Your task to perform on an android device: allow notifications from all sites in the chrome app Image 0: 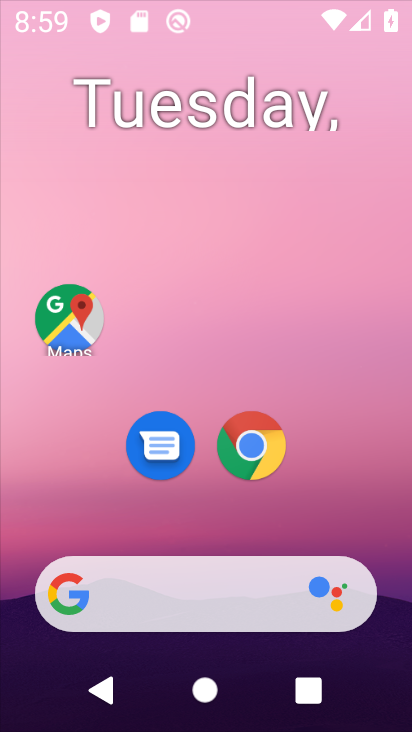
Step 0: drag from (240, 85) to (253, 6)
Your task to perform on an android device: allow notifications from all sites in the chrome app Image 1: 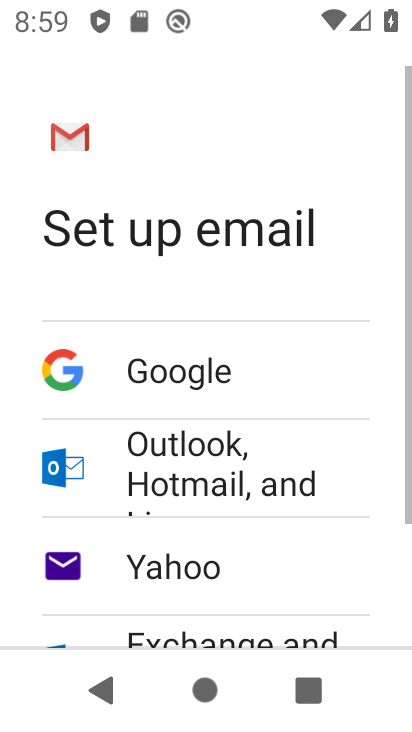
Step 1: press back button
Your task to perform on an android device: allow notifications from all sites in the chrome app Image 2: 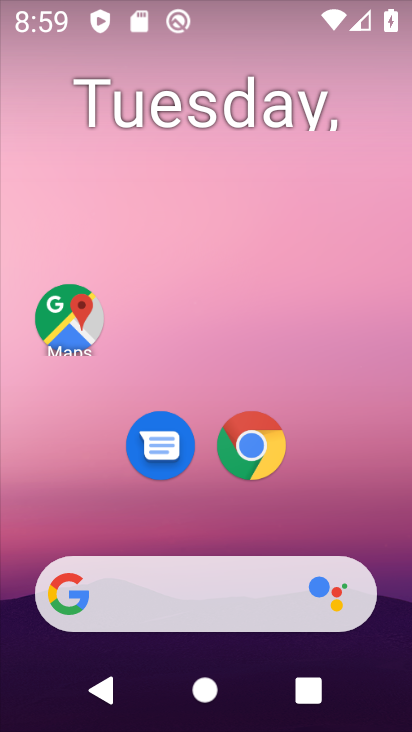
Step 2: click (250, 442)
Your task to perform on an android device: allow notifications from all sites in the chrome app Image 3: 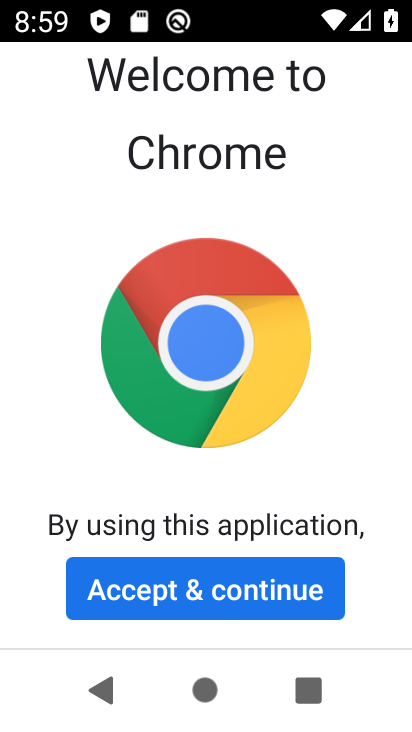
Step 3: click (163, 595)
Your task to perform on an android device: allow notifications from all sites in the chrome app Image 4: 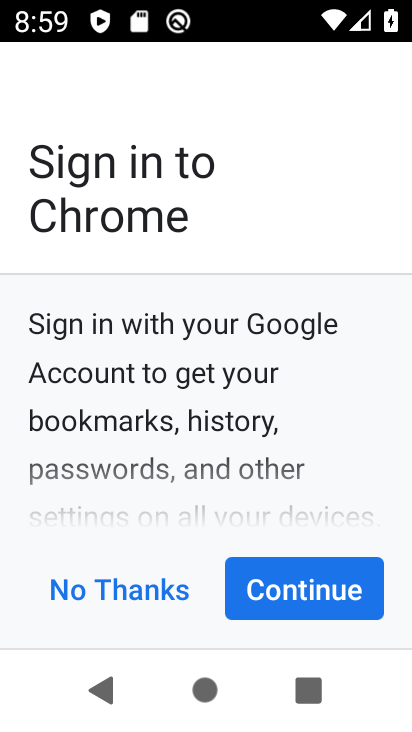
Step 4: click (269, 583)
Your task to perform on an android device: allow notifications from all sites in the chrome app Image 5: 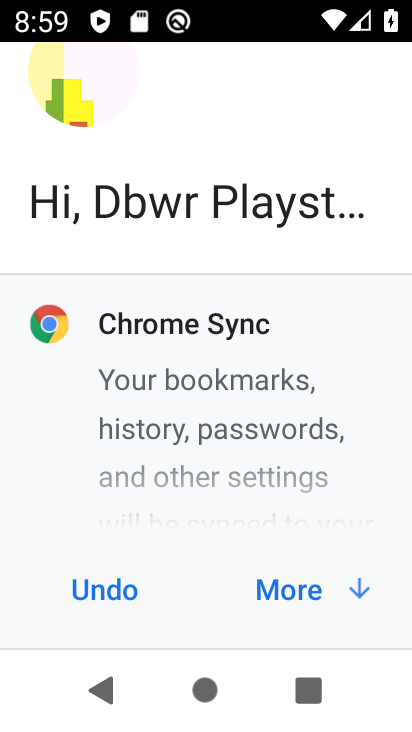
Step 5: click (295, 594)
Your task to perform on an android device: allow notifications from all sites in the chrome app Image 6: 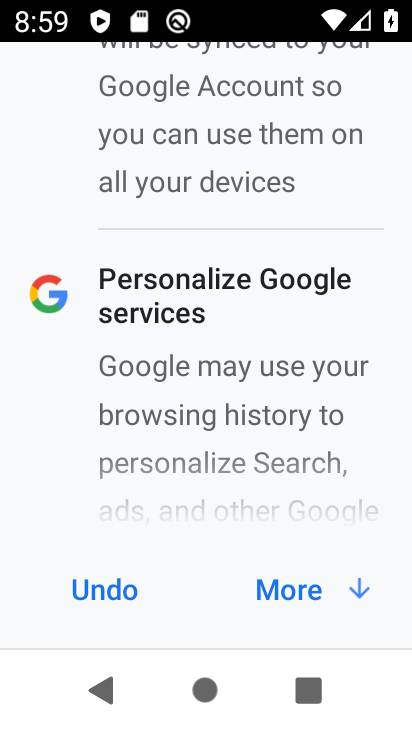
Step 6: click (295, 594)
Your task to perform on an android device: allow notifications from all sites in the chrome app Image 7: 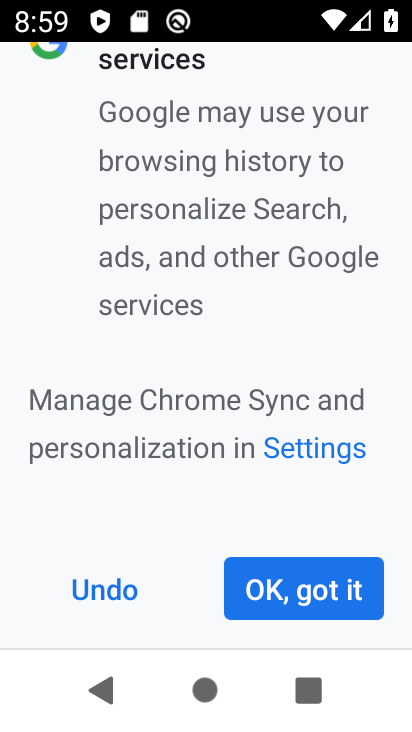
Step 7: click (295, 594)
Your task to perform on an android device: allow notifications from all sites in the chrome app Image 8: 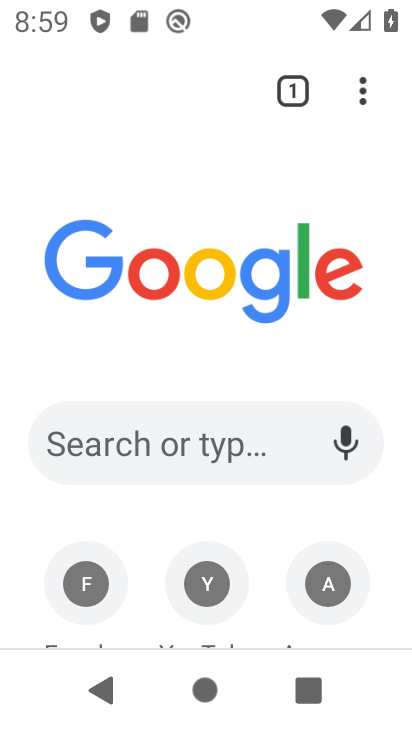
Step 8: click (362, 82)
Your task to perform on an android device: allow notifications from all sites in the chrome app Image 9: 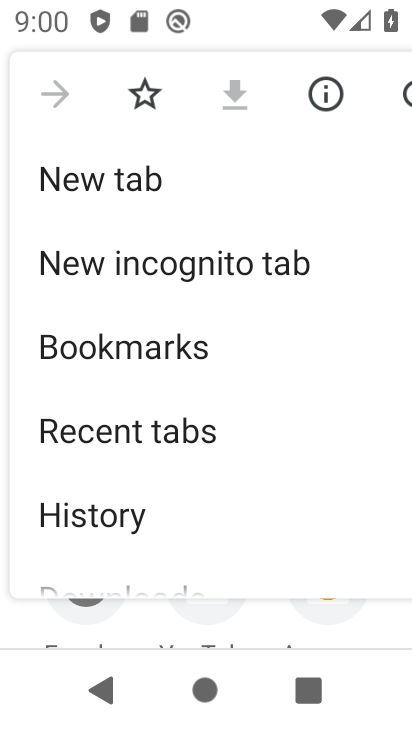
Step 9: drag from (118, 482) to (224, 25)
Your task to perform on an android device: allow notifications from all sites in the chrome app Image 10: 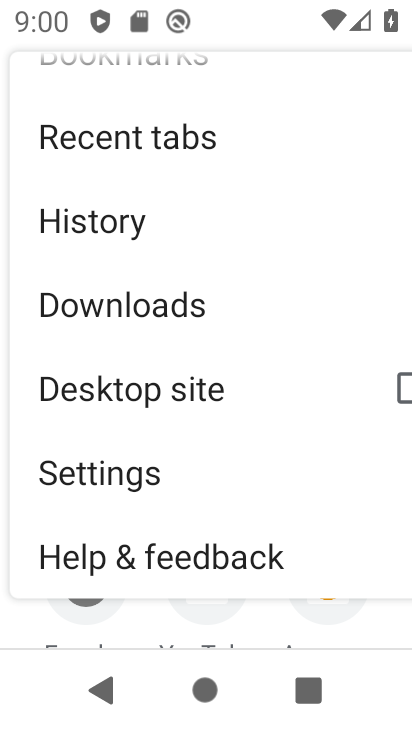
Step 10: click (126, 484)
Your task to perform on an android device: allow notifications from all sites in the chrome app Image 11: 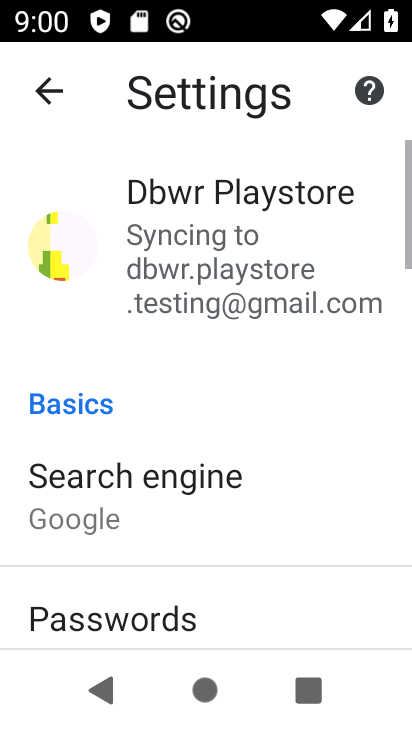
Step 11: drag from (134, 604) to (228, 88)
Your task to perform on an android device: allow notifications from all sites in the chrome app Image 12: 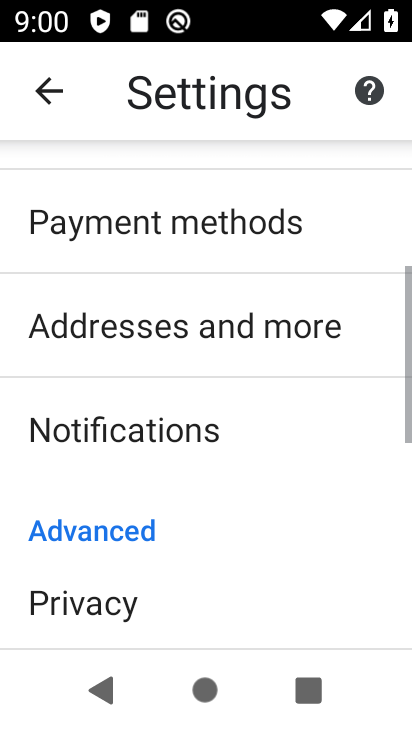
Step 12: drag from (146, 575) to (147, 487)
Your task to perform on an android device: allow notifications from all sites in the chrome app Image 13: 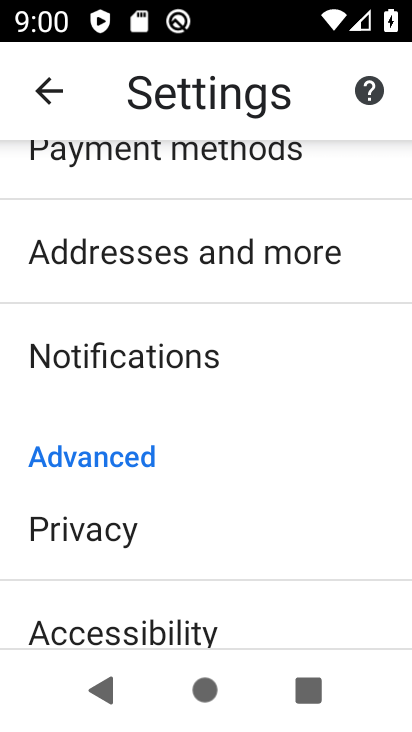
Step 13: drag from (160, 446) to (255, 84)
Your task to perform on an android device: allow notifications from all sites in the chrome app Image 14: 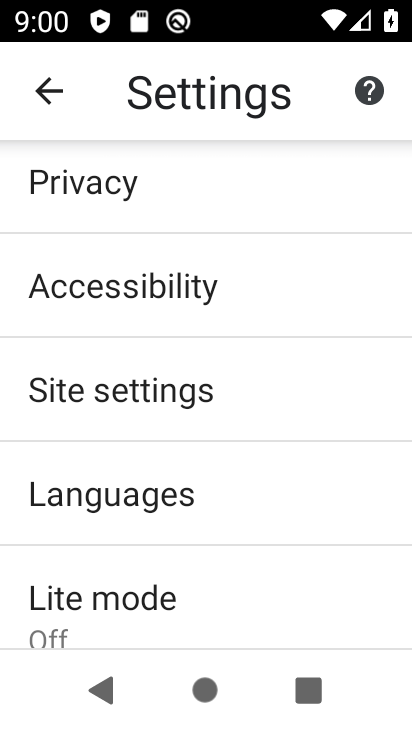
Step 14: click (182, 376)
Your task to perform on an android device: allow notifications from all sites in the chrome app Image 15: 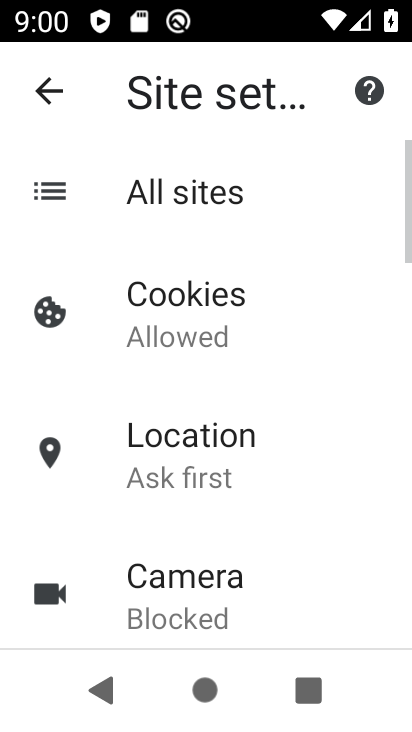
Step 15: drag from (181, 557) to (311, 114)
Your task to perform on an android device: allow notifications from all sites in the chrome app Image 16: 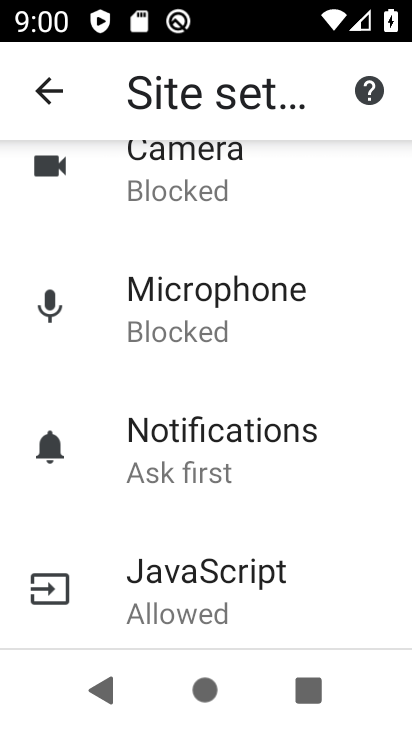
Step 16: click (198, 466)
Your task to perform on an android device: allow notifications from all sites in the chrome app Image 17: 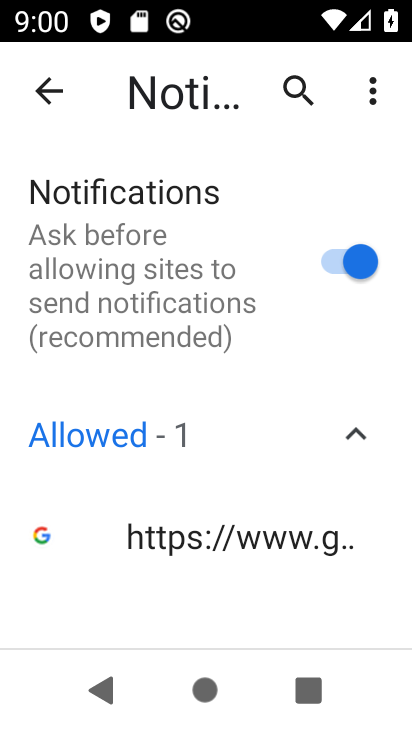
Step 17: task complete